Your task to perform on an android device: Open battery settings Image 0: 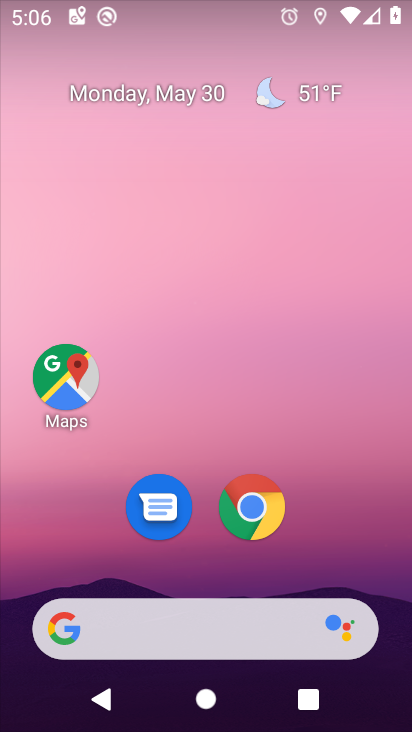
Step 0: press home button
Your task to perform on an android device: Open battery settings Image 1: 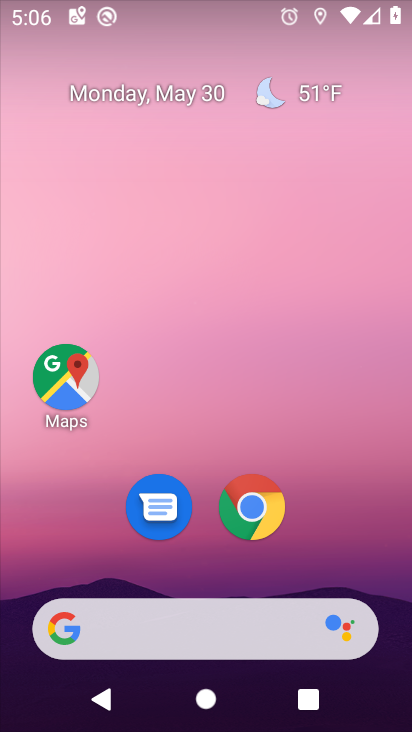
Step 1: drag from (363, 566) to (191, 65)
Your task to perform on an android device: Open battery settings Image 2: 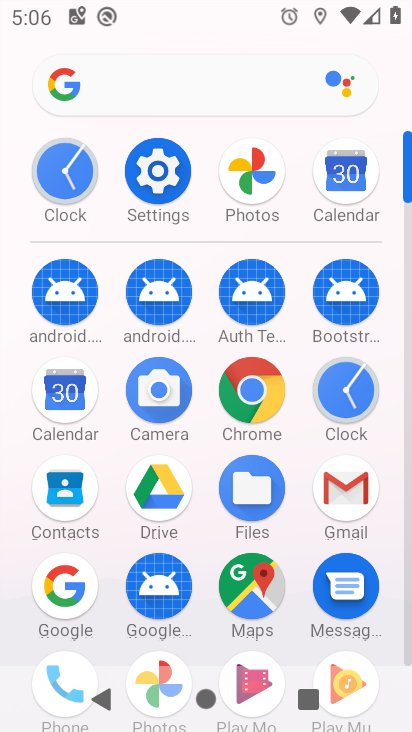
Step 2: click (135, 191)
Your task to perform on an android device: Open battery settings Image 3: 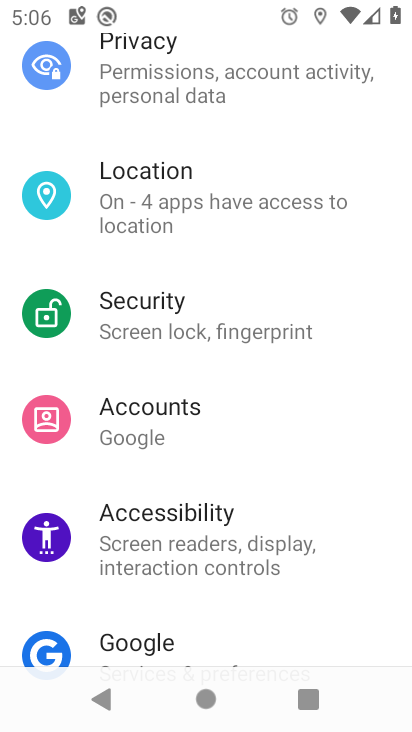
Step 3: drag from (185, 126) to (188, 653)
Your task to perform on an android device: Open battery settings Image 4: 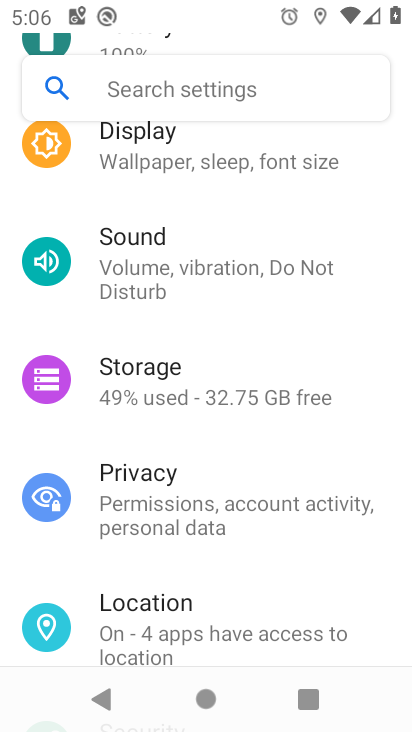
Step 4: drag from (246, 189) to (212, 726)
Your task to perform on an android device: Open battery settings Image 5: 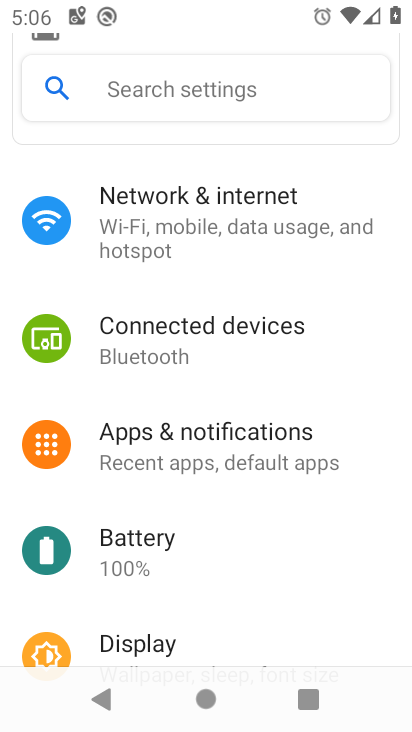
Step 5: click (160, 546)
Your task to perform on an android device: Open battery settings Image 6: 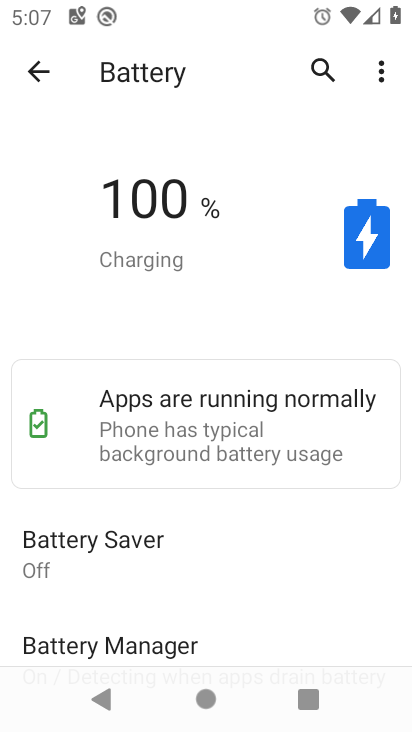
Step 6: task complete